Your task to perform on an android device: Is it going to rain tomorrow? Image 0: 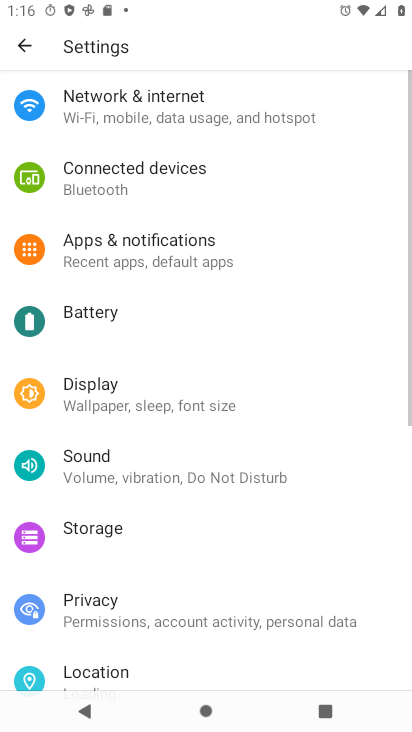
Step 0: press home button
Your task to perform on an android device: Is it going to rain tomorrow? Image 1: 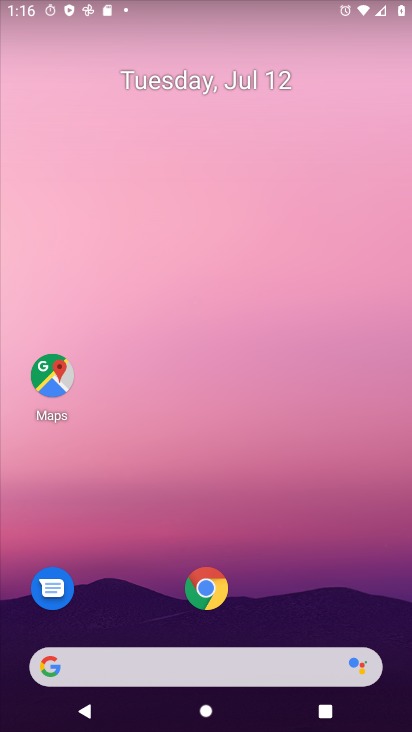
Step 1: click (157, 663)
Your task to perform on an android device: Is it going to rain tomorrow? Image 2: 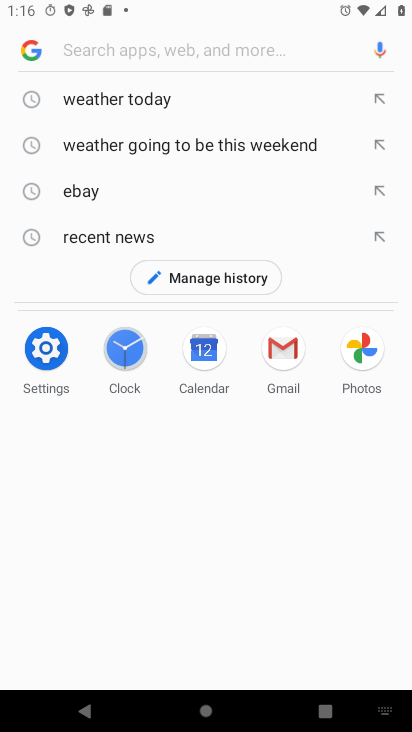
Step 2: type "Is it going to rain tomorrow"
Your task to perform on an android device: Is it going to rain tomorrow? Image 3: 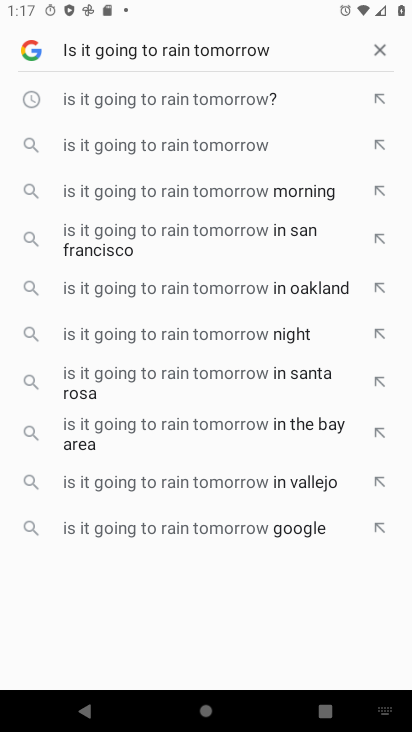
Step 3: click (180, 95)
Your task to perform on an android device: Is it going to rain tomorrow? Image 4: 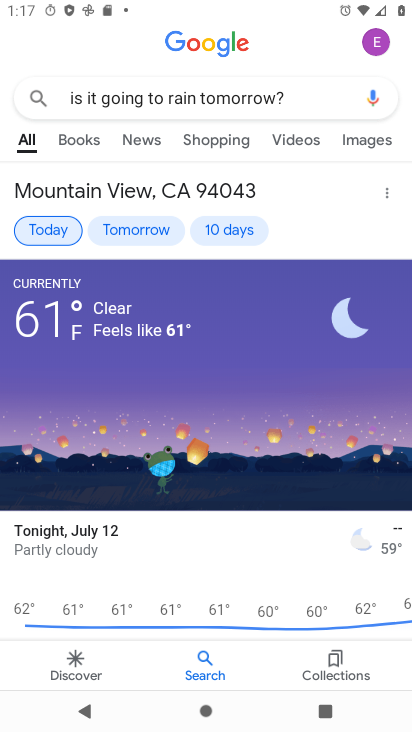
Step 4: click (117, 225)
Your task to perform on an android device: Is it going to rain tomorrow? Image 5: 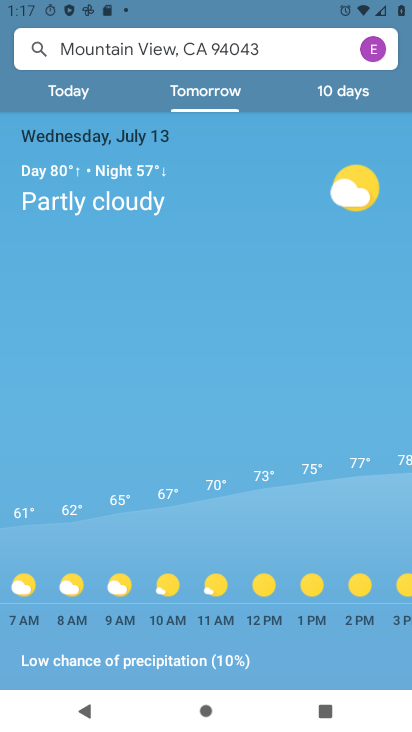
Step 5: task complete